Your task to perform on an android device: Clear the shopping cart on bestbuy. Image 0: 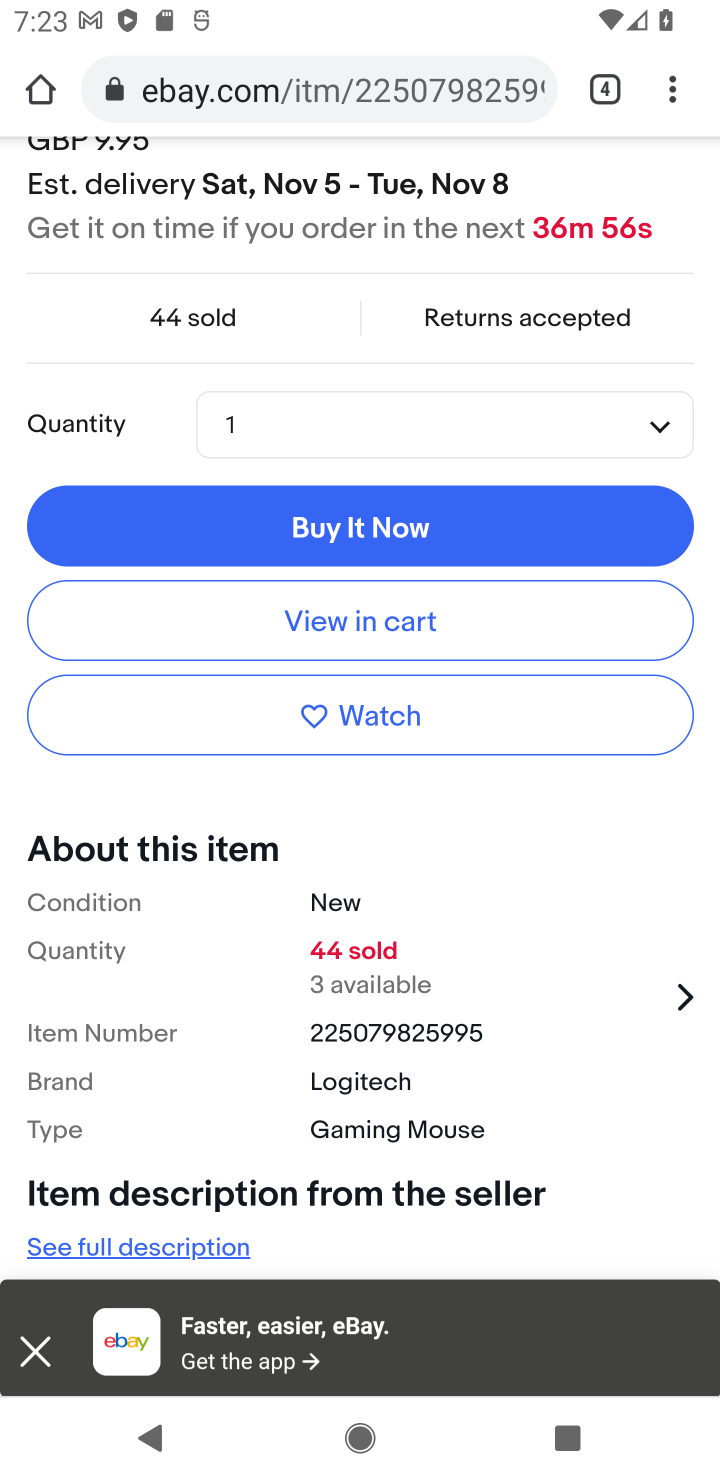
Step 0: click (606, 86)
Your task to perform on an android device: Clear the shopping cart on bestbuy. Image 1: 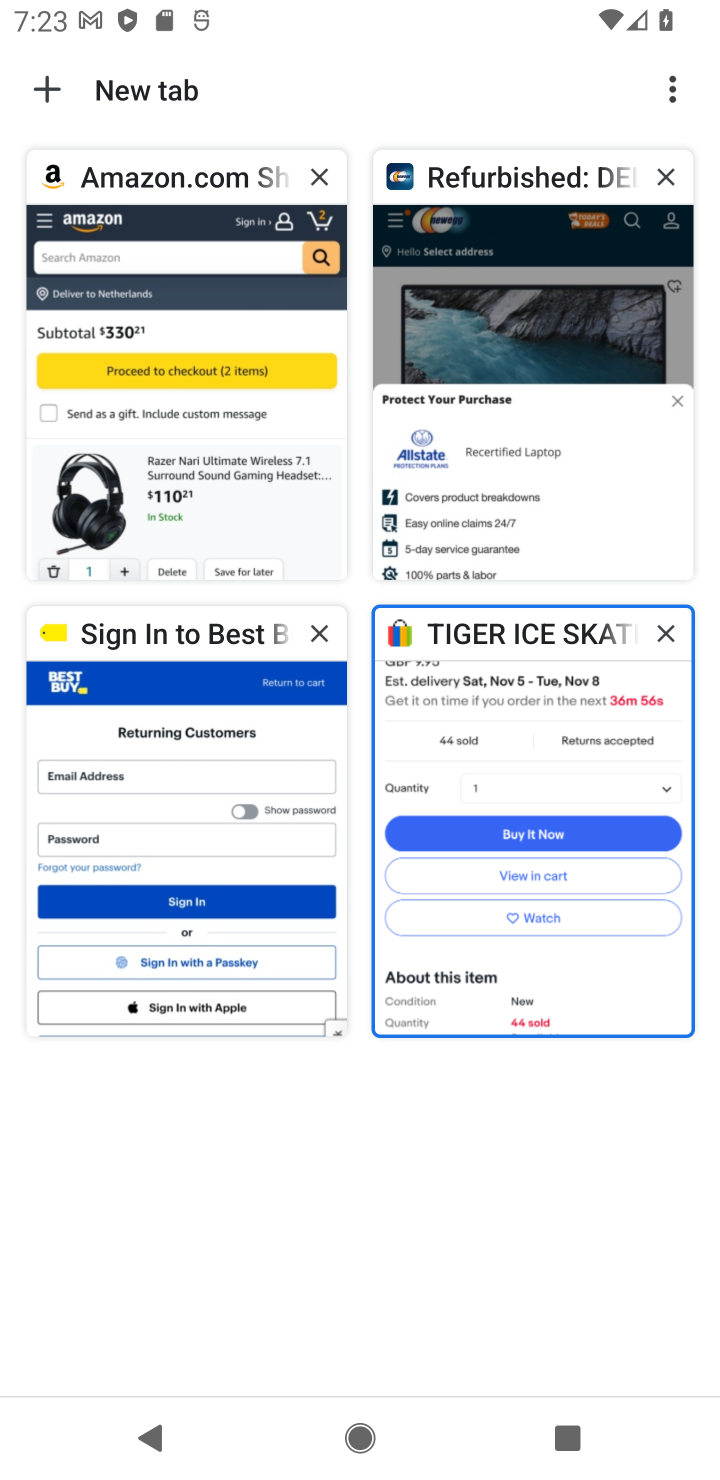
Step 1: click (150, 694)
Your task to perform on an android device: Clear the shopping cart on bestbuy. Image 2: 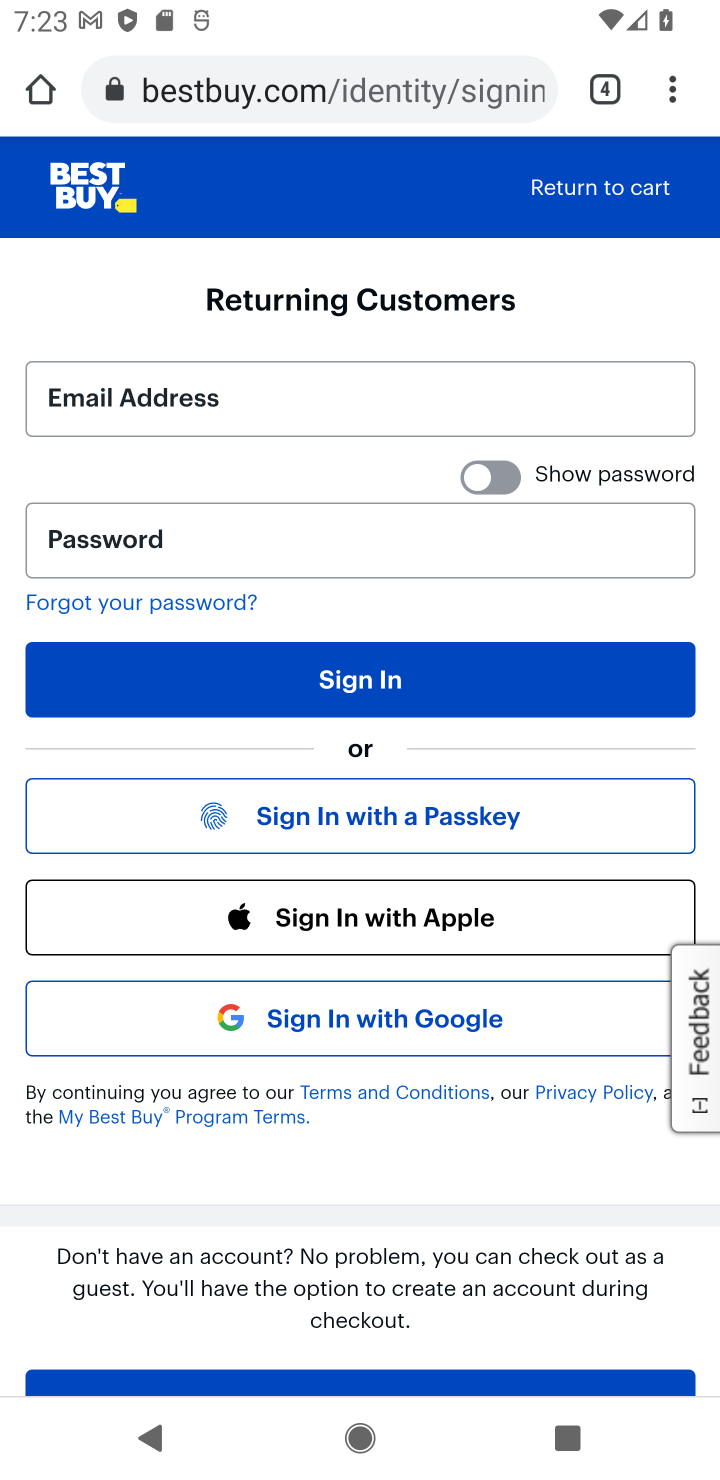
Step 2: click (614, 189)
Your task to perform on an android device: Clear the shopping cart on bestbuy. Image 3: 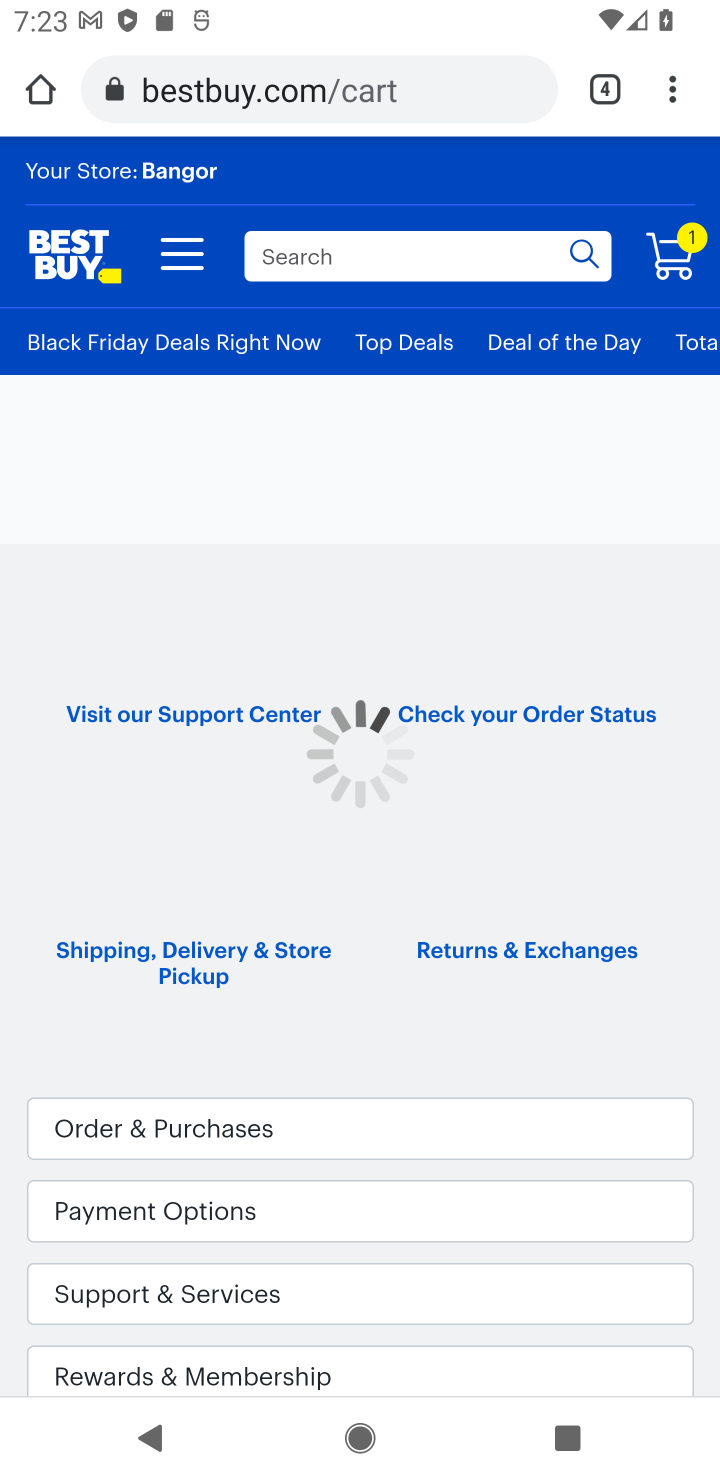
Step 3: click (670, 270)
Your task to perform on an android device: Clear the shopping cart on bestbuy. Image 4: 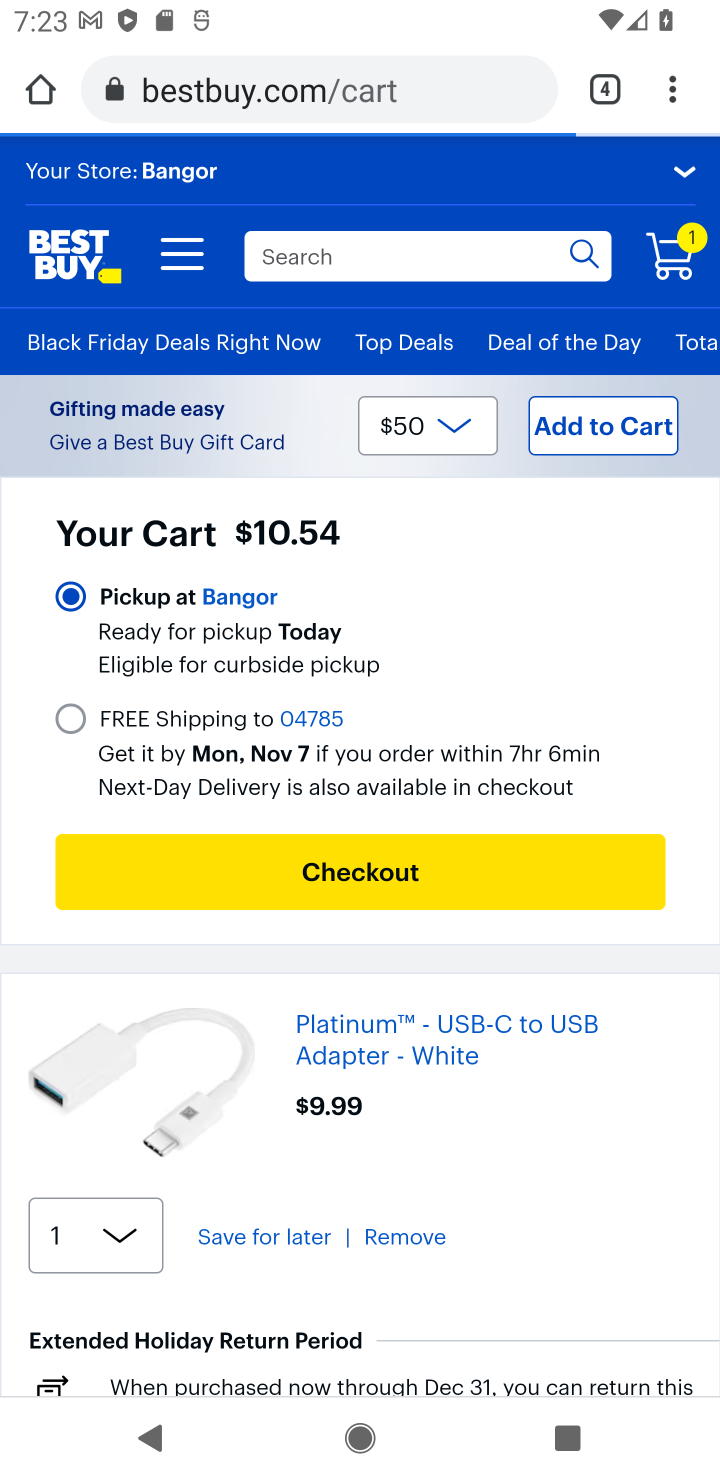
Step 4: click (393, 1227)
Your task to perform on an android device: Clear the shopping cart on bestbuy. Image 5: 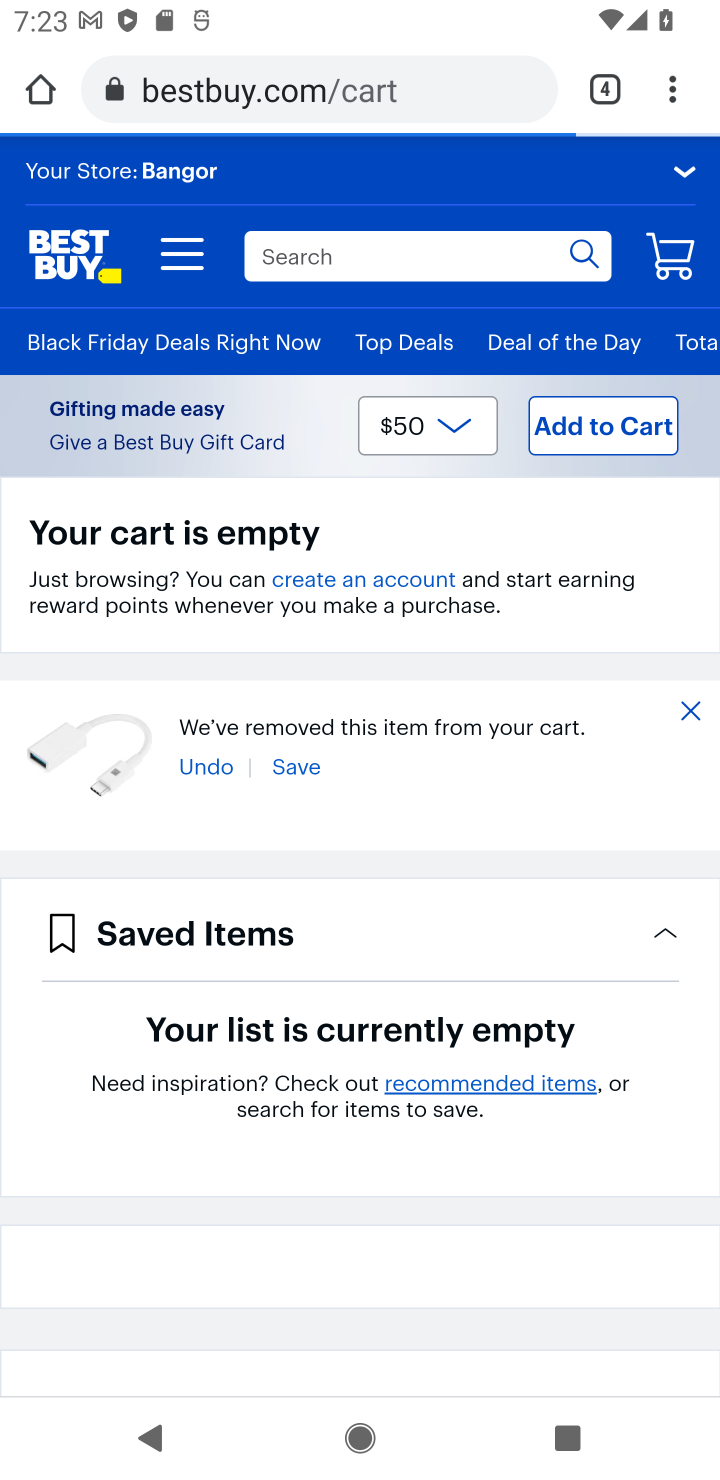
Step 5: task complete